Your task to perform on an android device: turn on priority inbox in the gmail app Image 0: 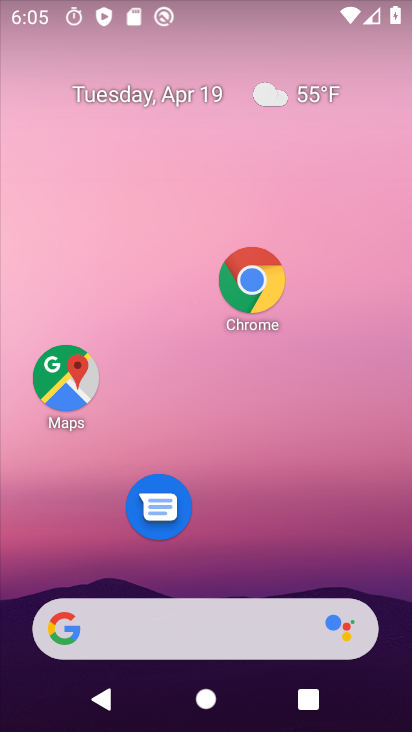
Step 0: drag from (206, 591) to (157, 233)
Your task to perform on an android device: turn on priority inbox in the gmail app Image 1: 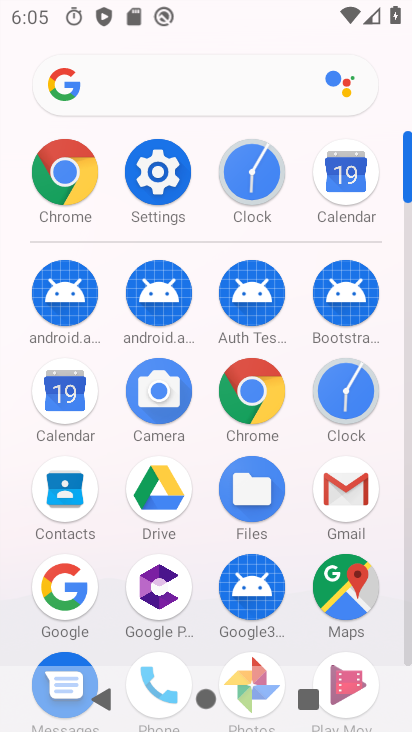
Step 1: click (342, 480)
Your task to perform on an android device: turn on priority inbox in the gmail app Image 2: 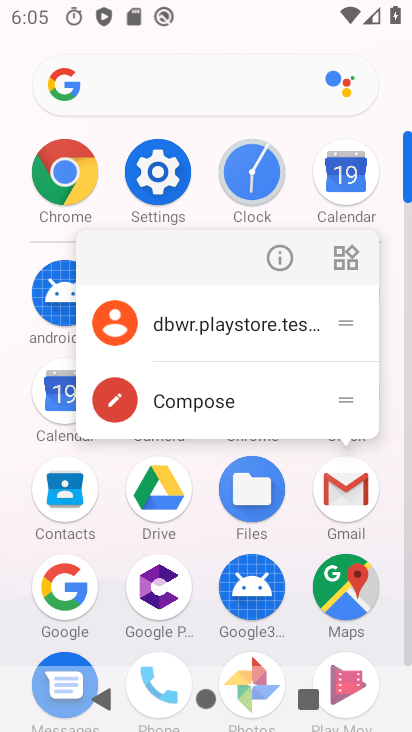
Step 2: click (343, 492)
Your task to perform on an android device: turn on priority inbox in the gmail app Image 3: 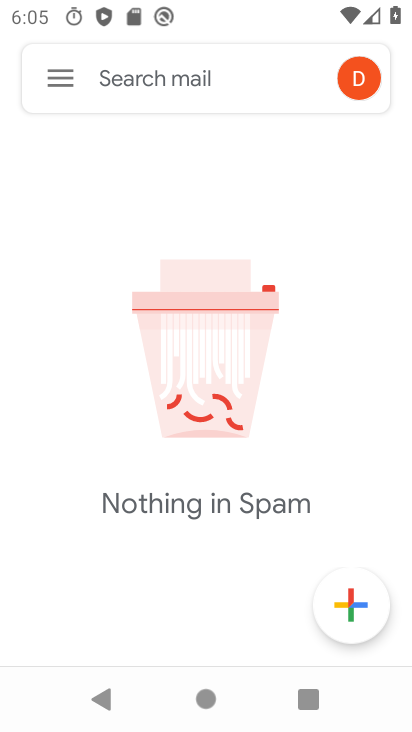
Step 3: click (65, 75)
Your task to perform on an android device: turn on priority inbox in the gmail app Image 4: 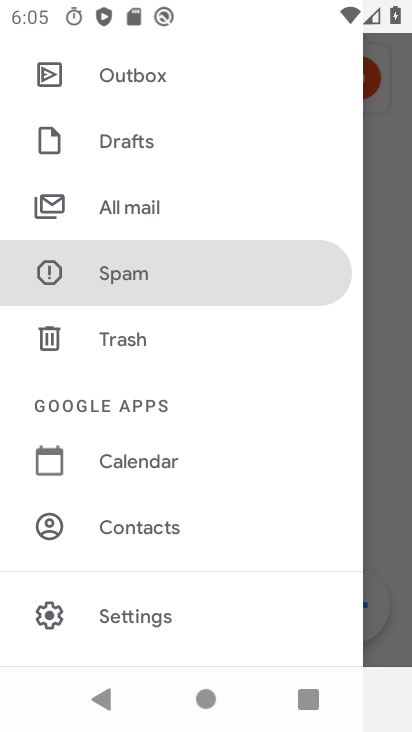
Step 4: click (148, 610)
Your task to perform on an android device: turn on priority inbox in the gmail app Image 5: 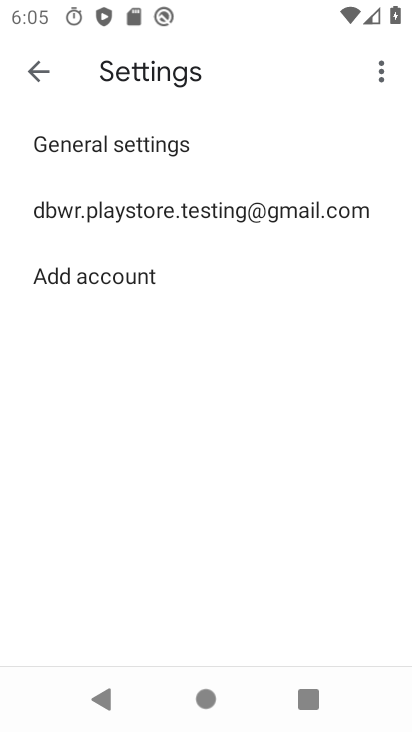
Step 5: click (189, 214)
Your task to perform on an android device: turn on priority inbox in the gmail app Image 6: 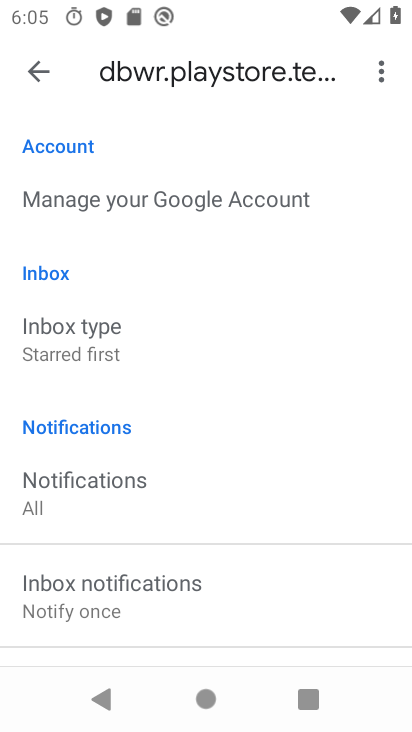
Step 6: click (67, 342)
Your task to perform on an android device: turn on priority inbox in the gmail app Image 7: 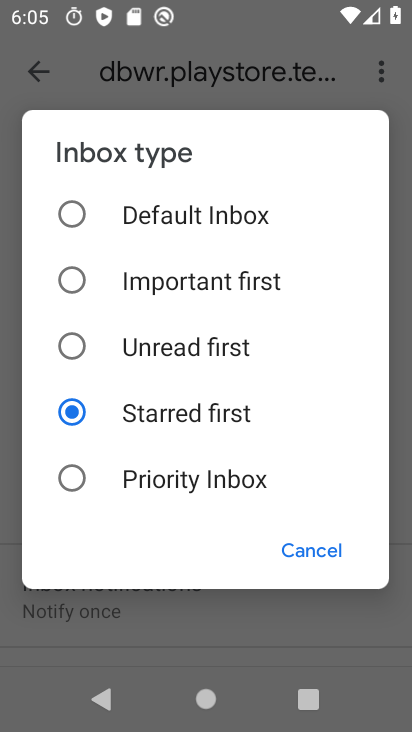
Step 7: click (69, 479)
Your task to perform on an android device: turn on priority inbox in the gmail app Image 8: 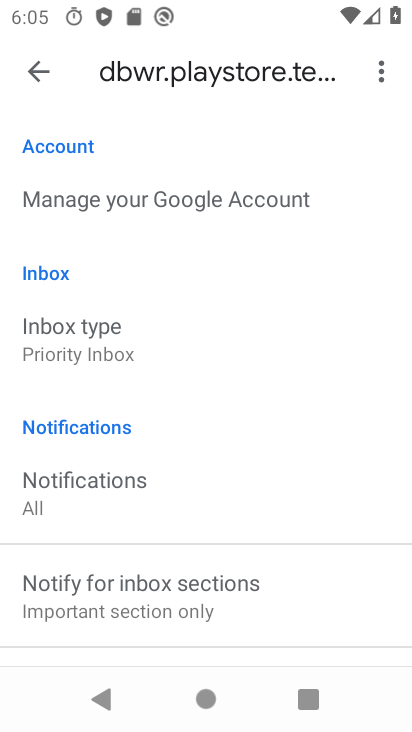
Step 8: task complete